Your task to perform on an android device: check battery use Image 0: 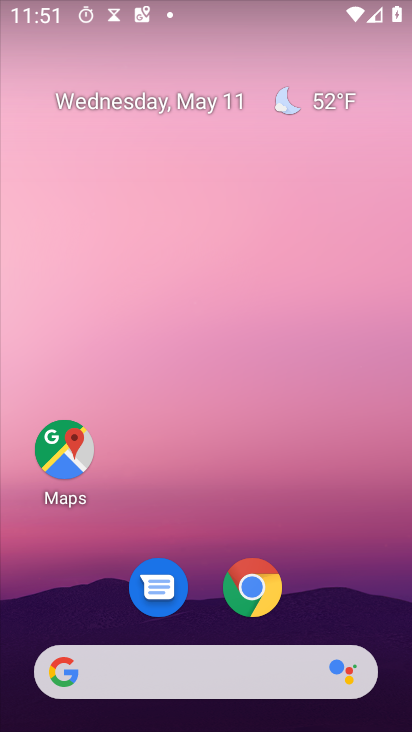
Step 0: drag from (263, 699) to (306, 225)
Your task to perform on an android device: check battery use Image 1: 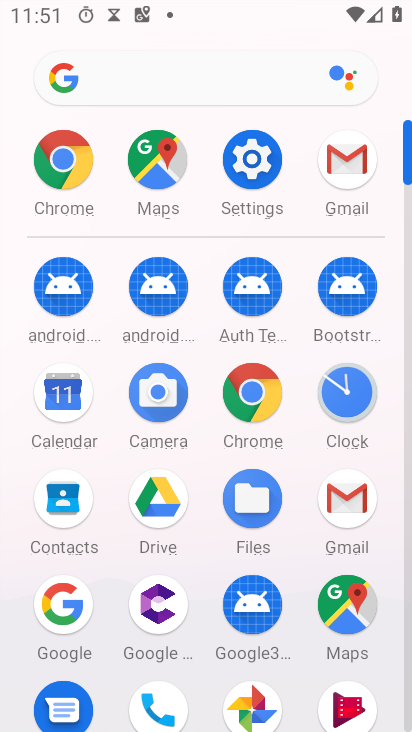
Step 1: click (260, 165)
Your task to perform on an android device: check battery use Image 2: 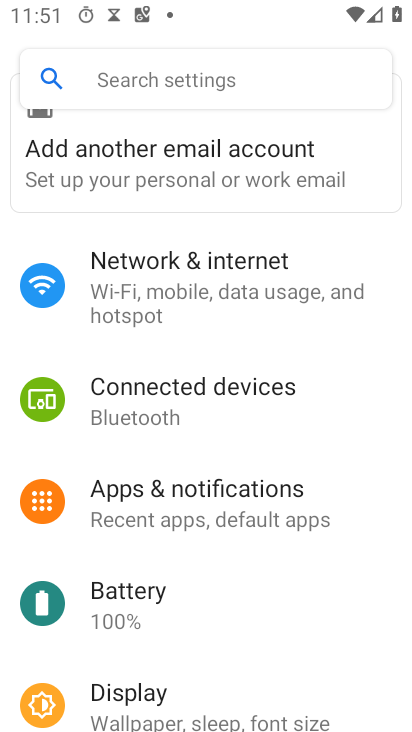
Step 2: click (142, 603)
Your task to perform on an android device: check battery use Image 3: 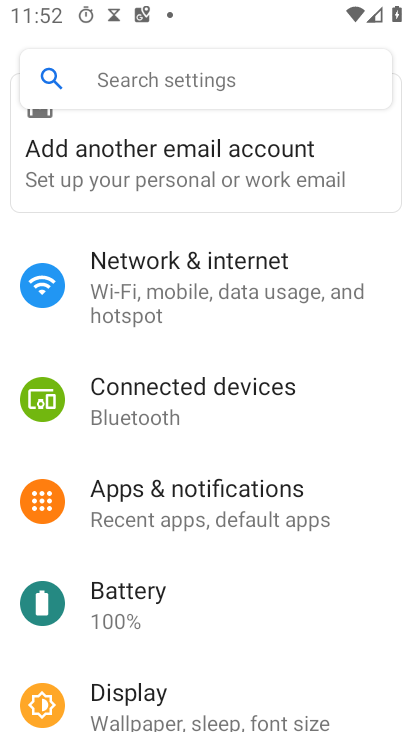
Step 3: click (165, 622)
Your task to perform on an android device: check battery use Image 4: 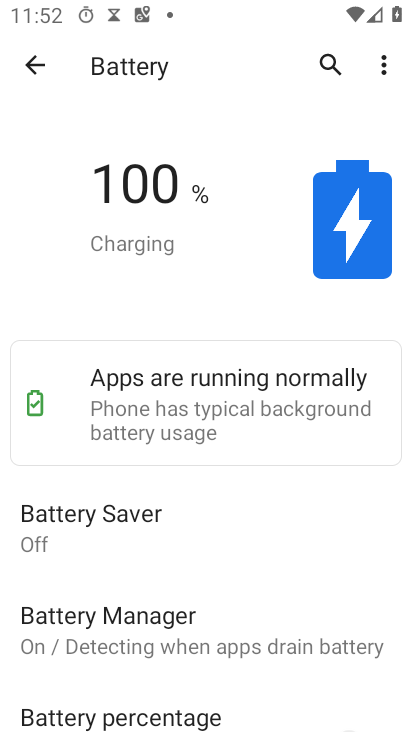
Step 4: task complete